Your task to perform on an android device: Open network settings Image 0: 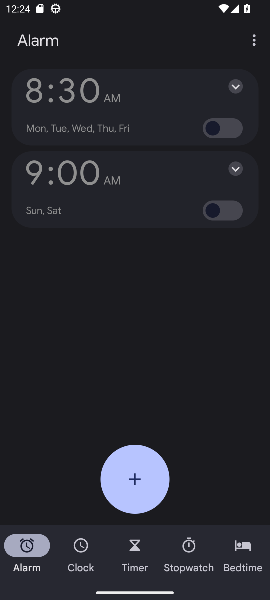
Step 0: press home button
Your task to perform on an android device: Open network settings Image 1: 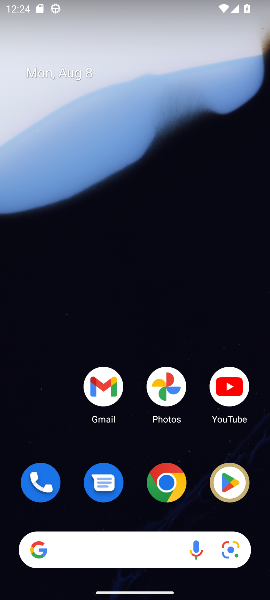
Step 1: click (185, 520)
Your task to perform on an android device: Open network settings Image 2: 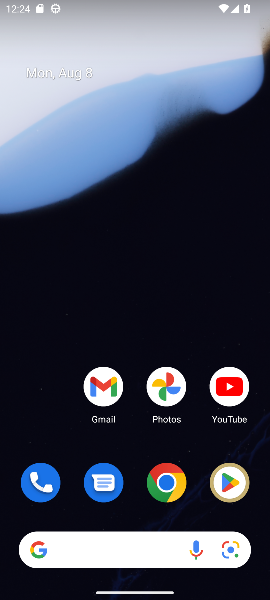
Step 2: drag from (96, 557) to (167, 96)
Your task to perform on an android device: Open network settings Image 3: 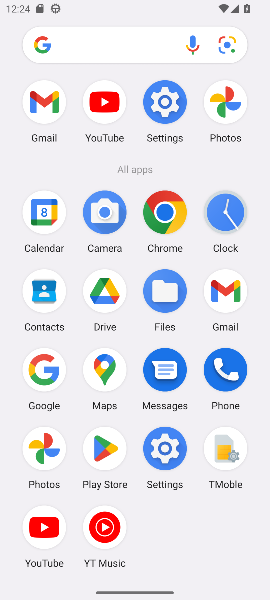
Step 3: click (172, 104)
Your task to perform on an android device: Open network settings Image 4: 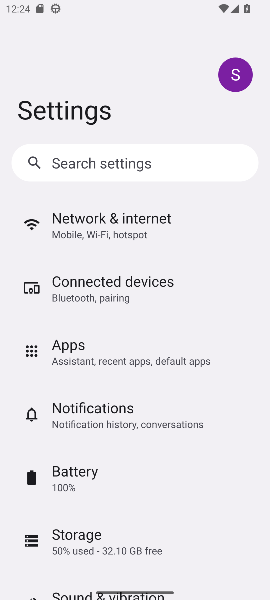
Step 4: click (160, 230)
Your task to perform on an android device: Open network settings Image 5: 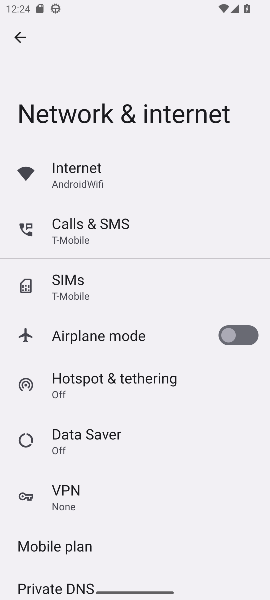
Step 5: task complete